Your task to perform on an android device: open app "Indeed Job Search" Image 0: 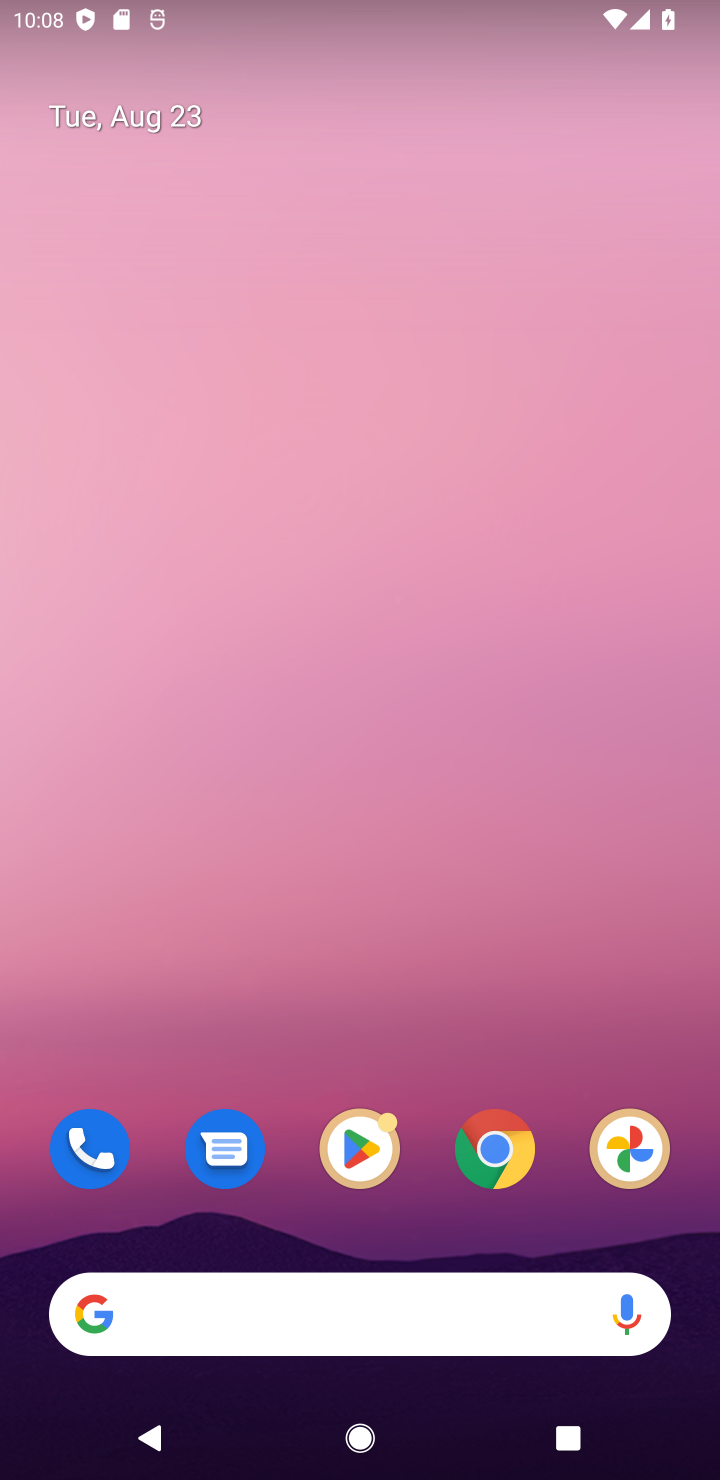
Step 0: click (358, 1170)
Your task to perform on an android device: open app "Indeed Job Search" Image 1: 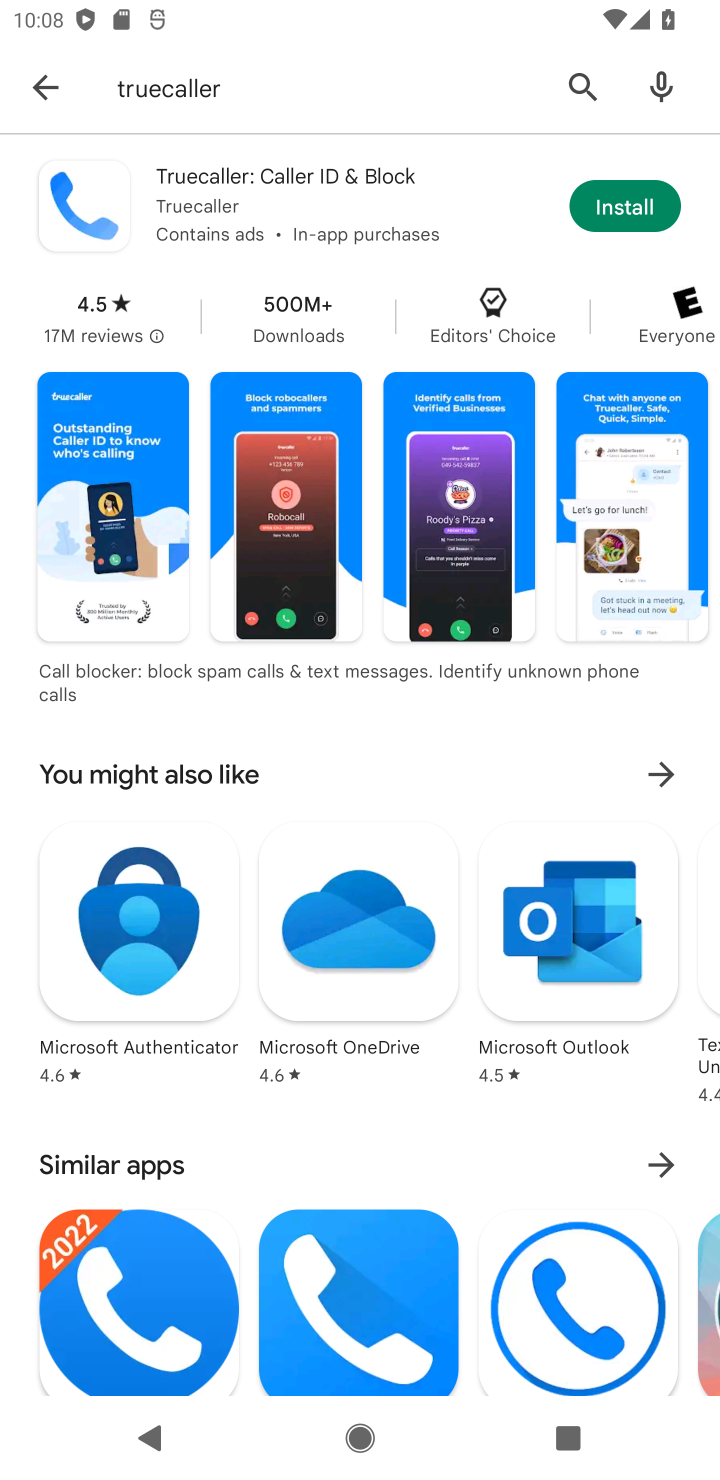
Step 1: click (572, 83)
Your task to perform on an android device: open app "Indeed Job Search" Image 2: 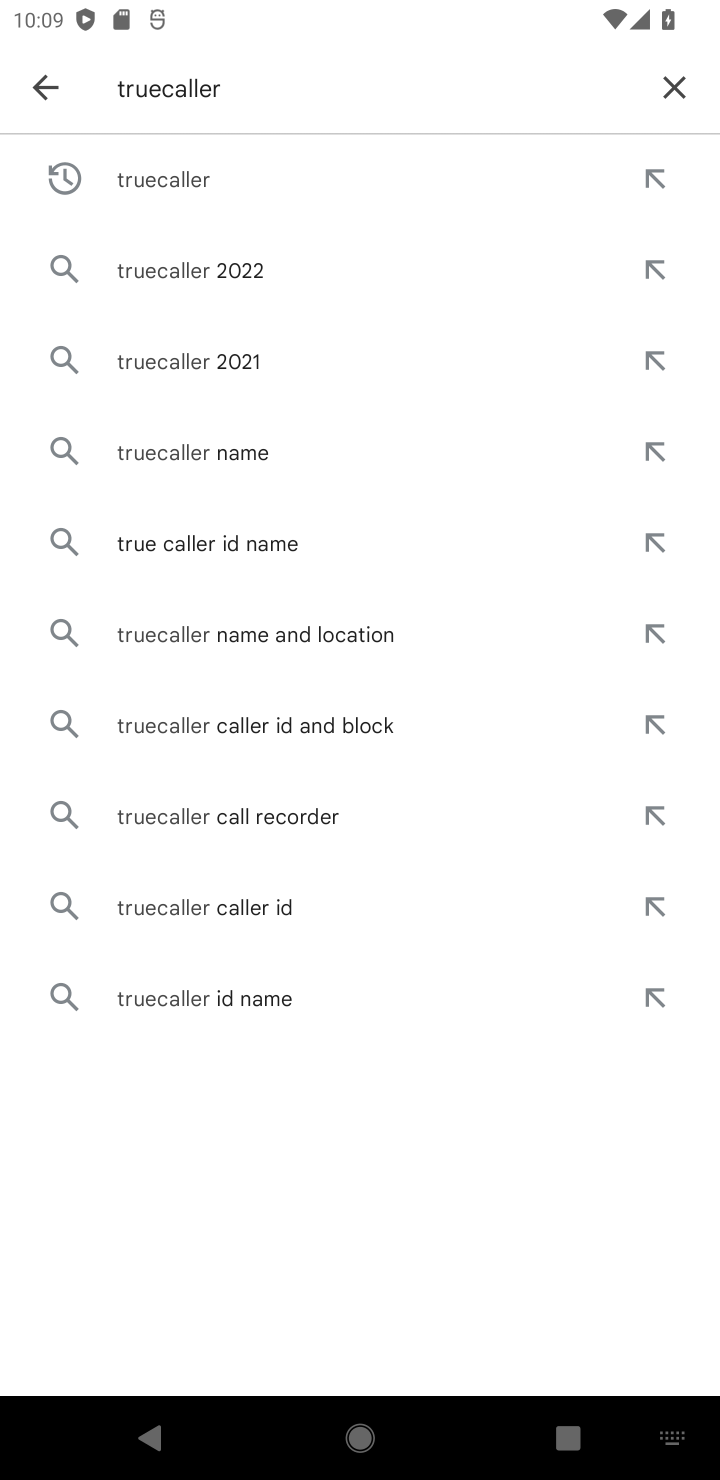
Step 2: click (666, 84)
Your task to perform on an android device: open app "Indeed Job Search" Image 3: 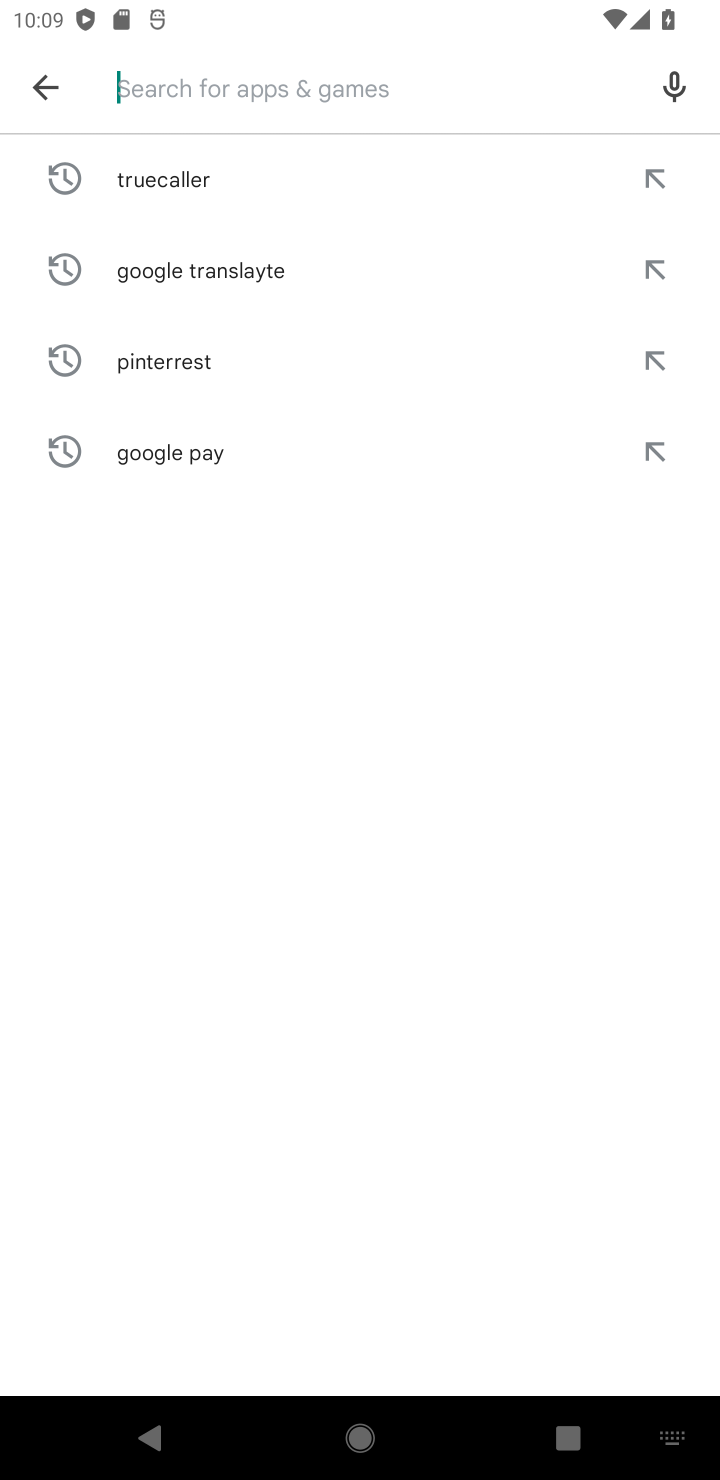
Step 3: type "indeed"
Your task to perform on an android device: open app "Indeed Job Search" Image 4: 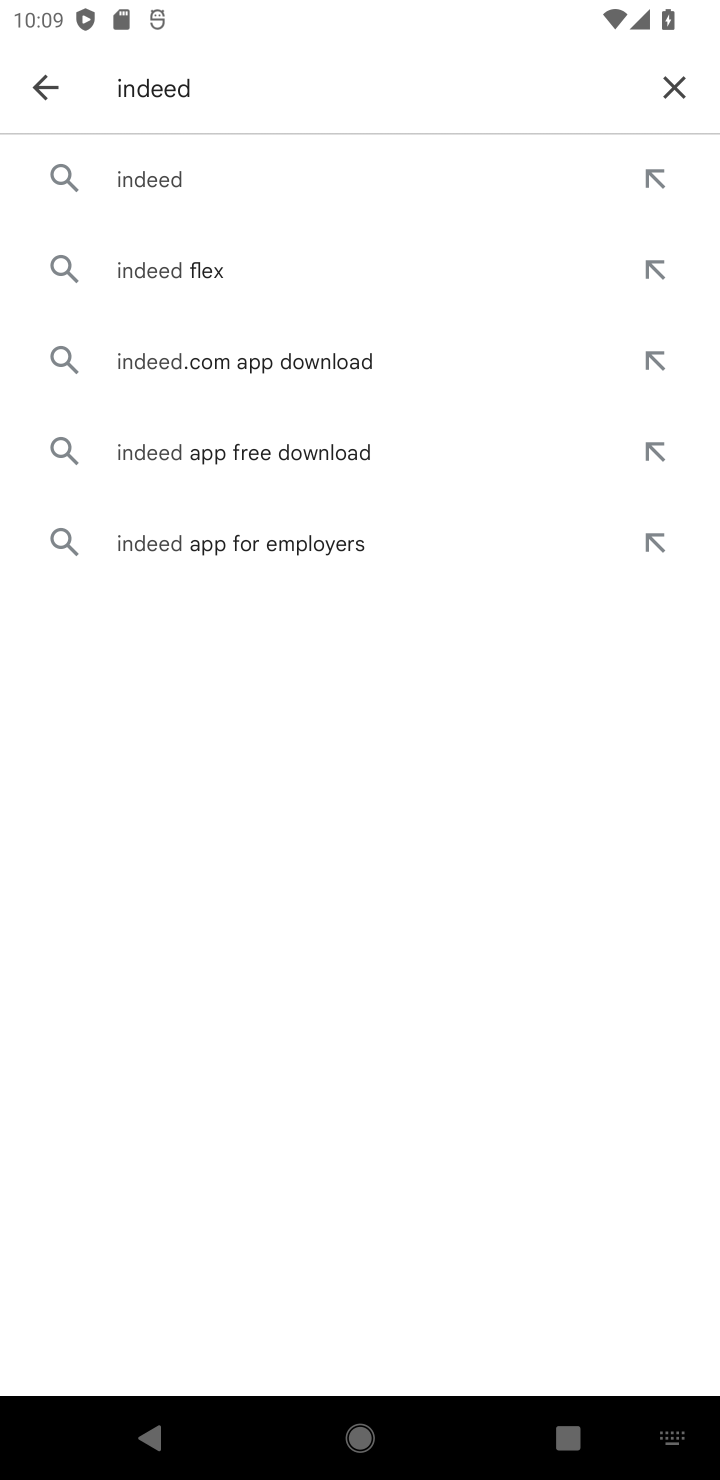
Step 4: click (409, 176)
Your task to perform on an android device: open app "Indeed Job Search" Image 5: 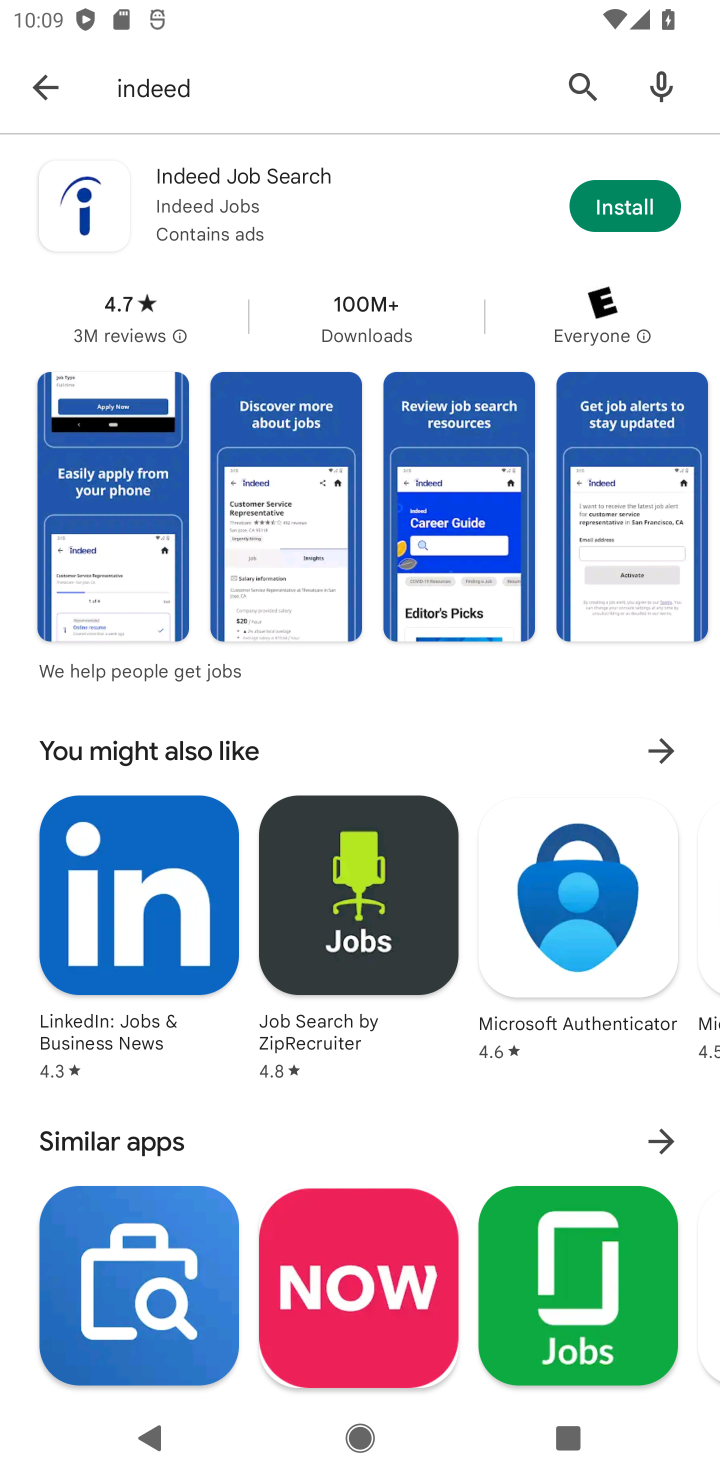
Step 5: click (616, 205)
Your task to perform on an android device: open app "Indeed Job Search" Image 6: 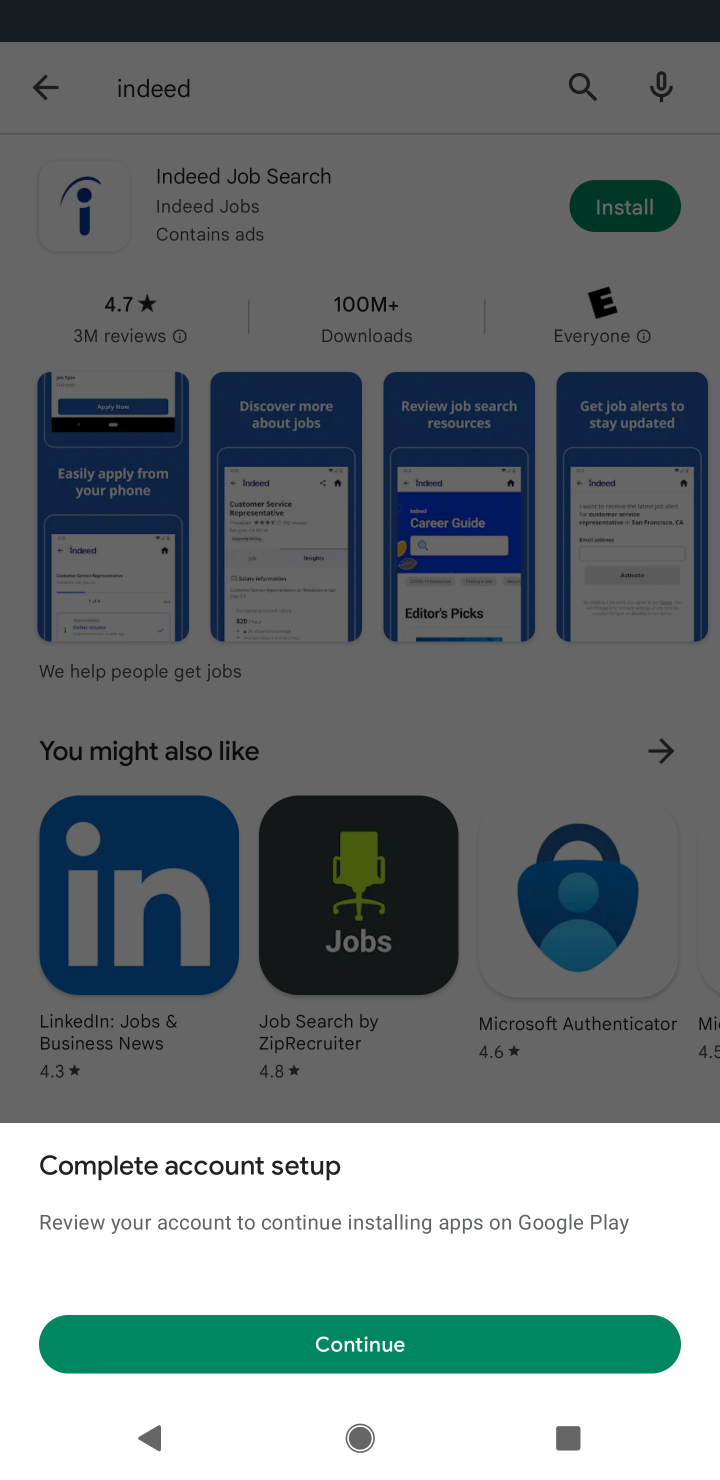
Step 6: click (226, 1379)
Your task to perform on an android device: open app "Indeed Job Search" Image 7: 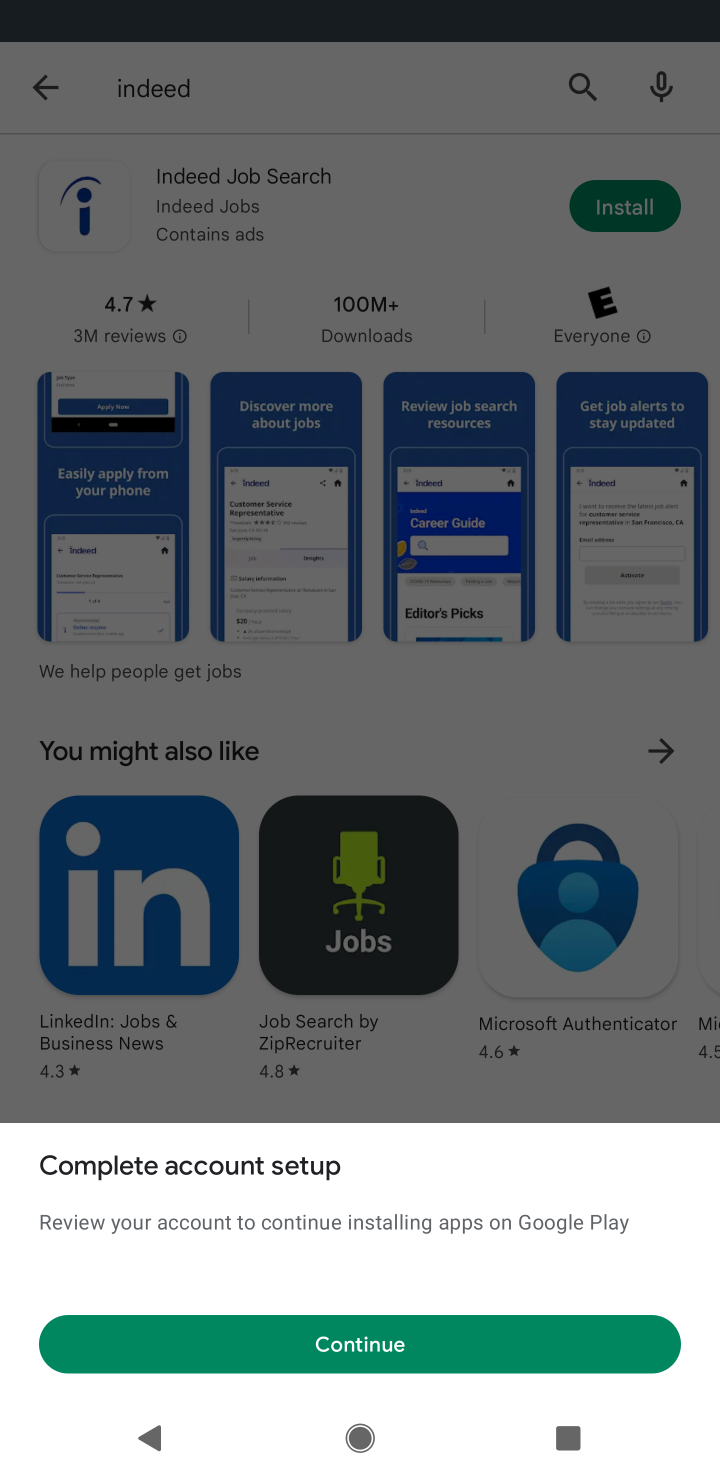
Step 7: click (238, 1358)
Your task to perform on an android device: open app "Indeed Job Search" Image 8: 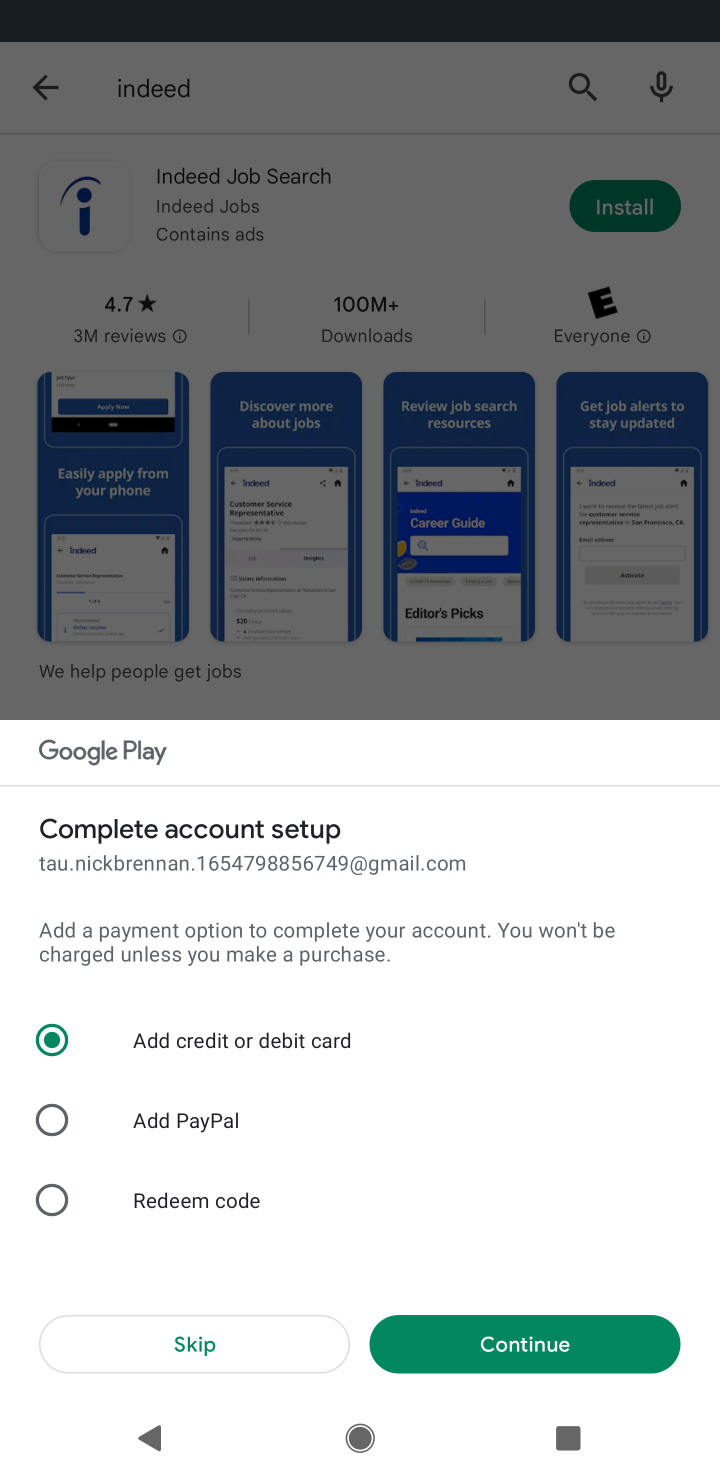
Step 8: click (327, 1345)
Your task to perform on an android device: open app "Indeed Job Search" Image 9: 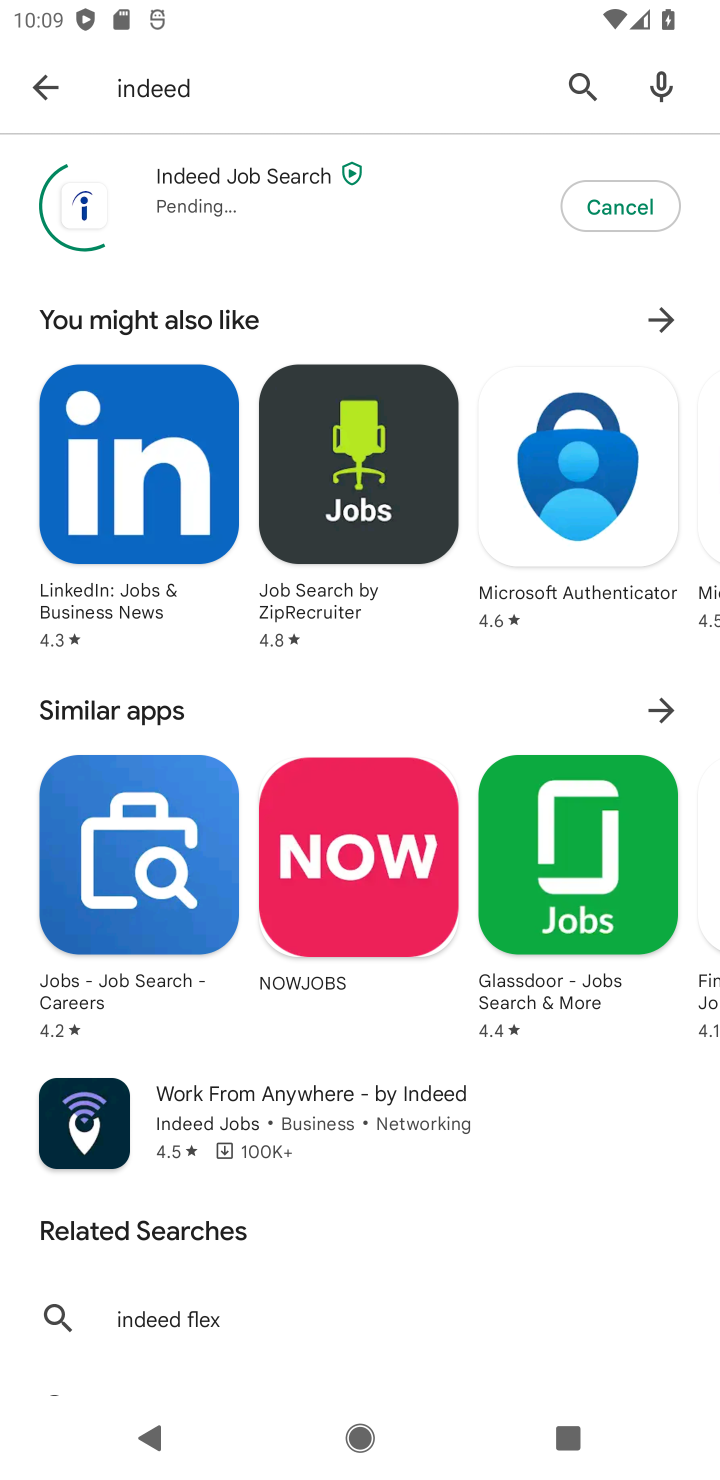
Step 9: task complete